Your task to perform on an android device: Set the phone to "Do not disturb". Image 0: 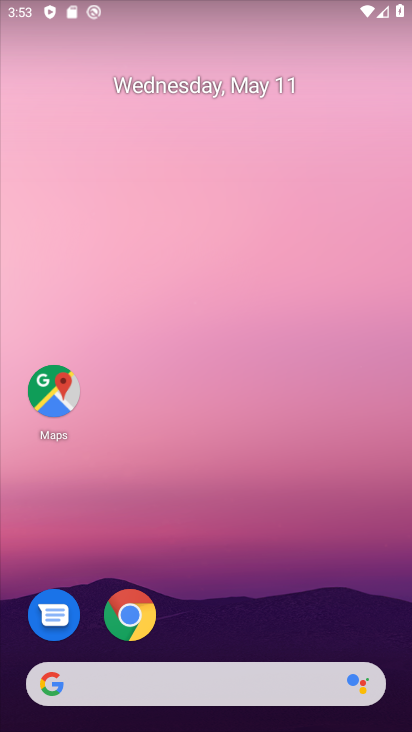
Step 0: drag from (257, 627) to (407, 140)
Your task to perform on an android device: Set the phone to "Do not disturb". Image 1: 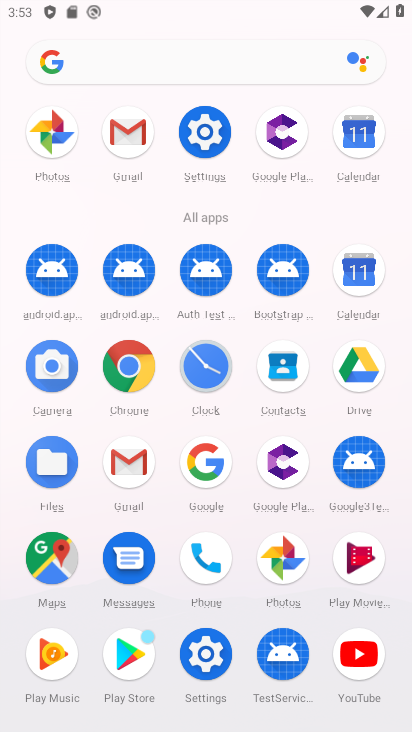
Step 1: click (199, 124)
Your task to perform on an android device: Set the phone to "Do not disturb". Image 2: 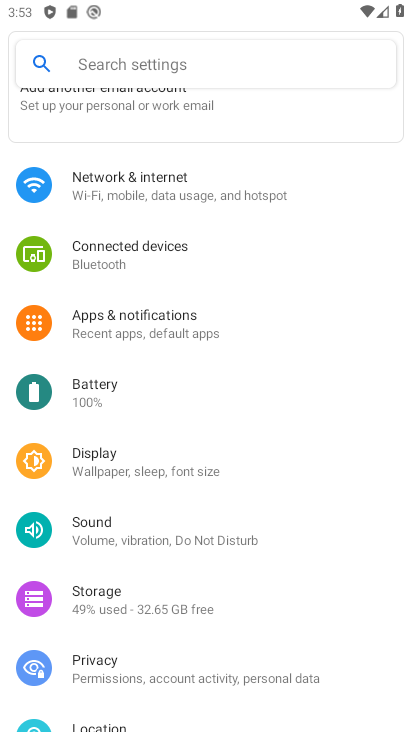
Step 2: click (185, 540)
Your task to perform on an android device: Set the phone to "Do not disturb". Image 3: 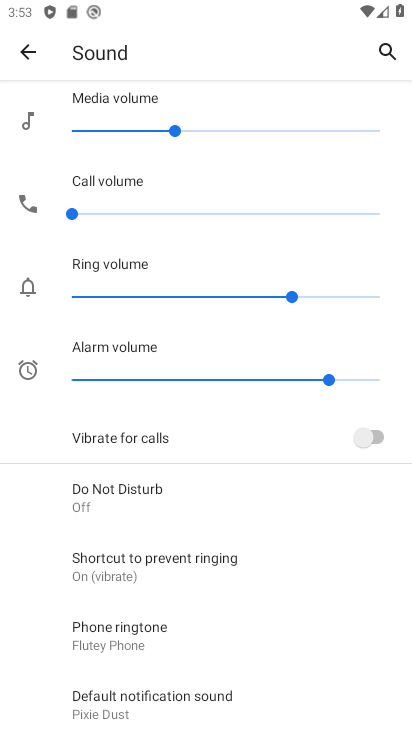
Step 3: click (201, 503)
Your task to perform on an android device: Set the phone to "Do not disturb". Image 4: 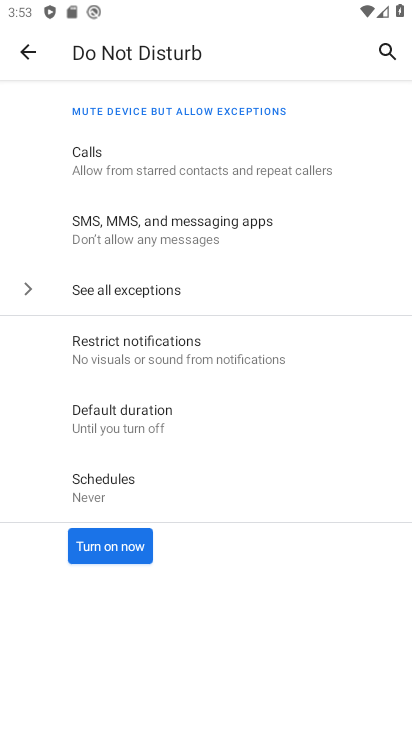
Step 4: click (122, 559)
Your task to perform on an android device: Set the phone to "Do not disturb". Image 5: 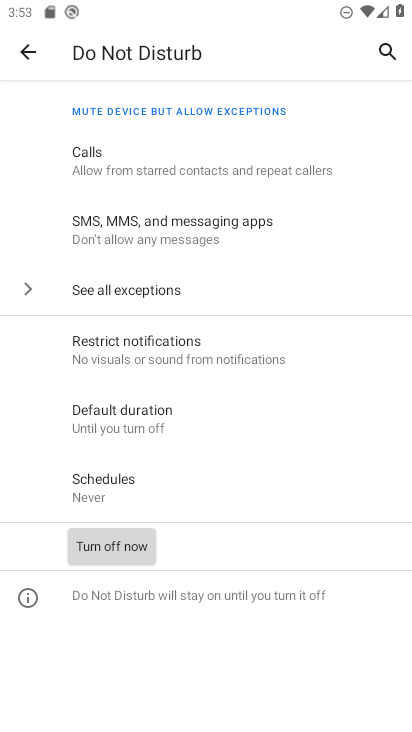
Step 5: task complete